Your task to perform on an android device: install app "PUBG MOBILE" Image 0: 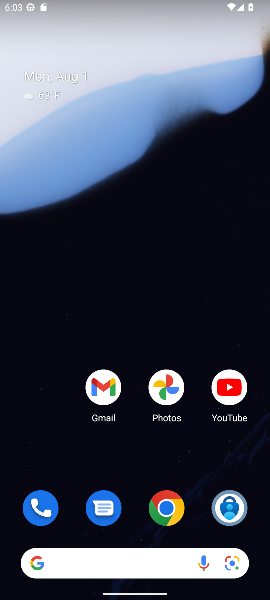
Step 0: drag from (136, 532) to (177, 594)
Your task to perform on an android device: install app "PUBG MOBILE" Image 1: 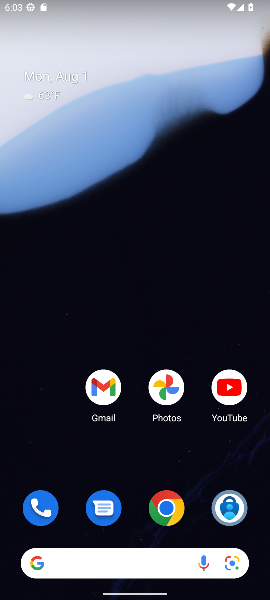
Step 1: drag from (122, 543) to (80, 116)
Your task to perform on an android device: install app "PUBG MOBILE" Image 2: 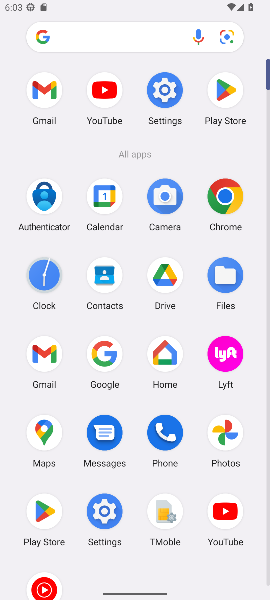
Step 2: click (43, 500)
Your task to perform on an android device: install app "PUBG MOBILE" Image 3: 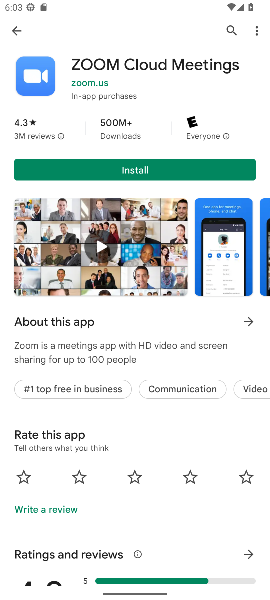
Step 3: click (16, 26)
Your task to perform on an android device: install app "PUBG MOBILE" Image 4: 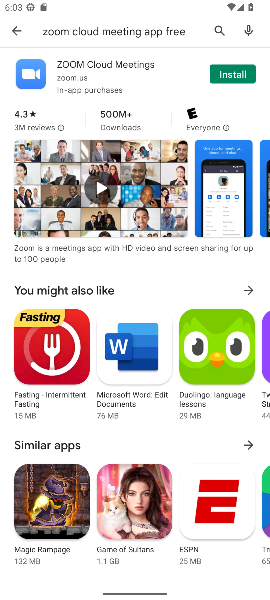
Step 4: click (15, 23)
Your task to perform on an android device: install app "PUBG MOBILE" Image 5: 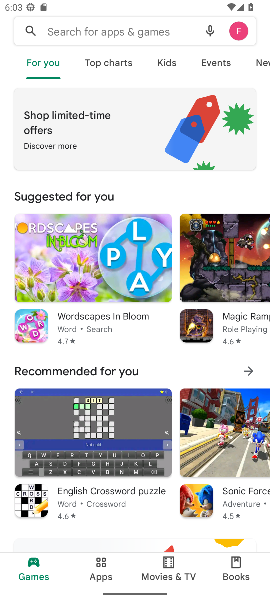
Step 5: click (139, 38)
Your task to perform on an android device: install app "PUBG MOBILE" Image 6: 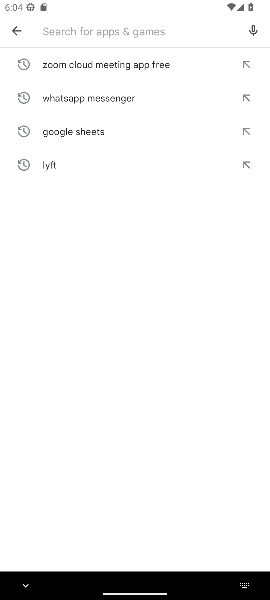
Step 6: type "PUBG MOBILE"
Your task to perform on an android device: install app "PUBG MOBILE" Image 7: 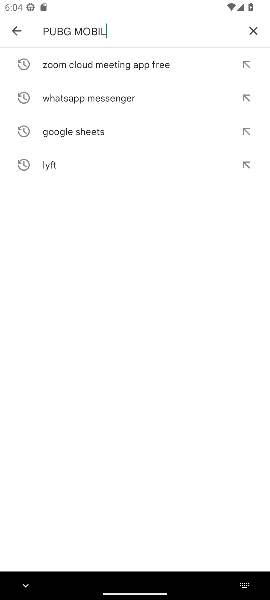
Step 7: type ""
Your task to perform on an android device: install app "PUBG MOBILE" Image 8: 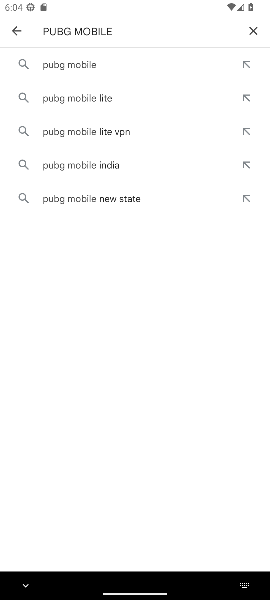
Step 8: click (95, 67)
Your task to perform on an android device: install app "PUBG MOBILE" Image 9: 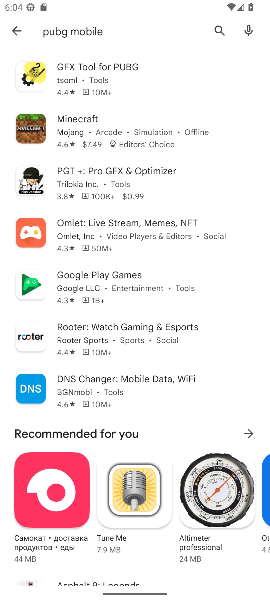
Step 9: task complete